Your task to perform on an android device: toggle notification dots Image 0: 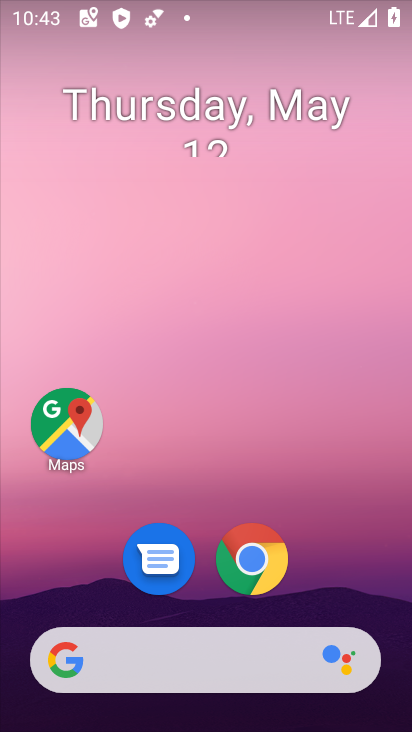
Step 0: drag from (192, 607) to (197, 183)
Your task to perform on an android device: toggle notification dots Image 1: 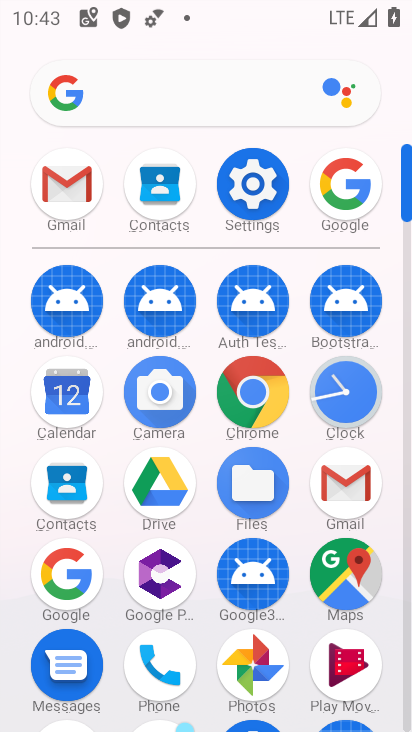
Step 1: click (224, 185)
Your task to perform on an android device: toggle notification dots Image 2: 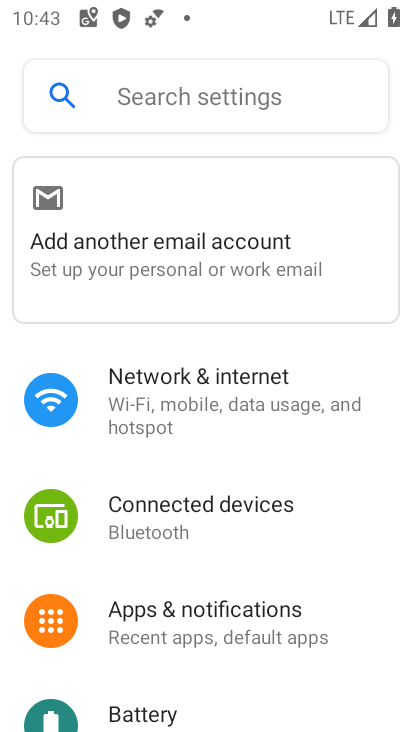
Step 2: click (231, 617)
Your task to perform on an android device: toggle notification dots Image 3: 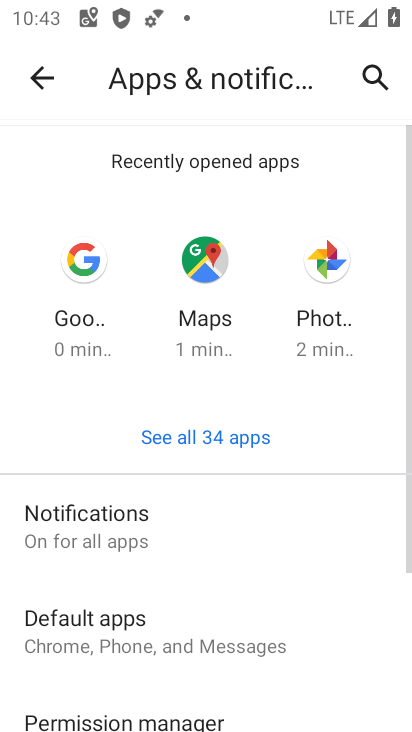
Step 3: click (177, 541)
Your task to perform on an android device: toggle notification dots Image 4: 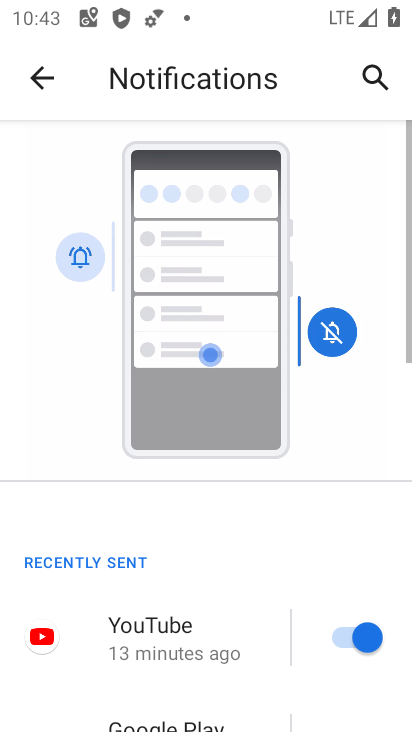
Step 4: drag from (242, 649) to (230, 282)
Your task to perform on an android device: toggle notification dots Image 5: 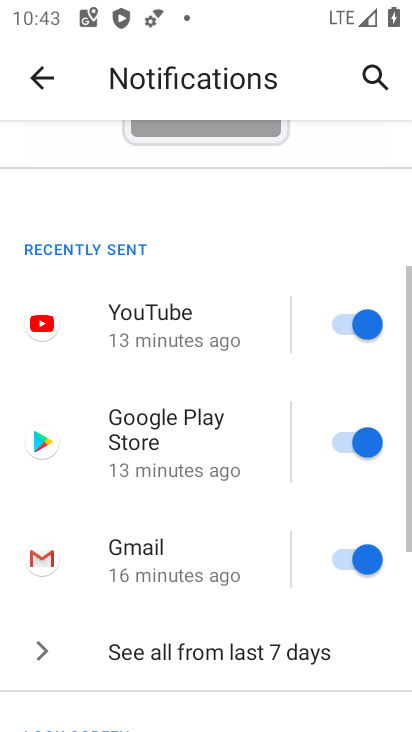
Step 5: drag from (224, 644) to (241, 363)
Your task to perform on an android device: toggle notification dots Image 6: 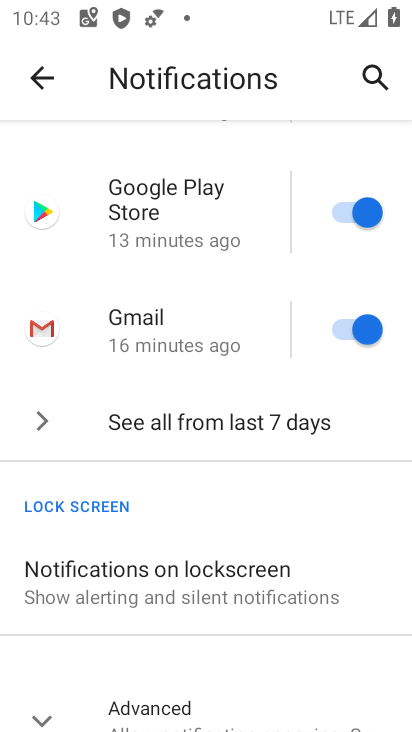
Step 6: drag from (213, 632) to (230, 372)
Your task to perform on an android device: toggle notification dots Image 7: 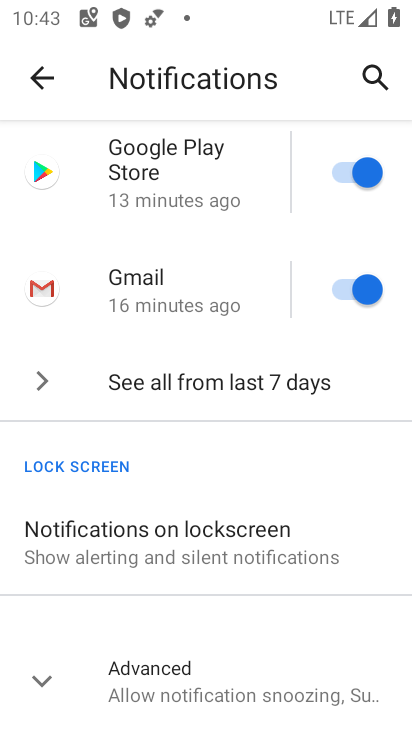
Step 7: click (203, 647)
Your task to perform on an android device: toggle notification dots Image 8: 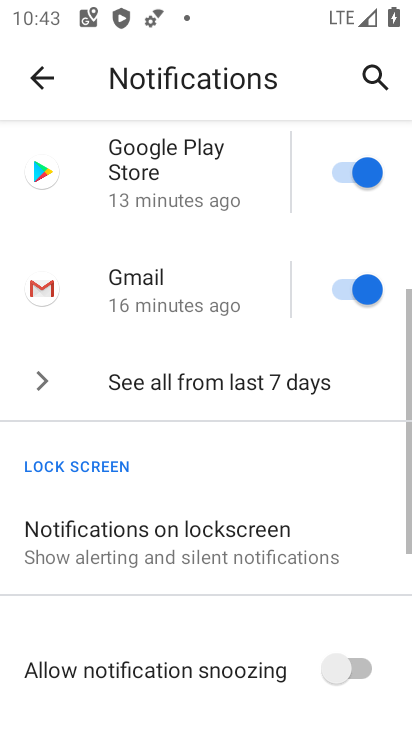
Step 8: drag from (231, 605) to (268, 313)
Your task to perform on an android device: toggle notification dots Image 9: 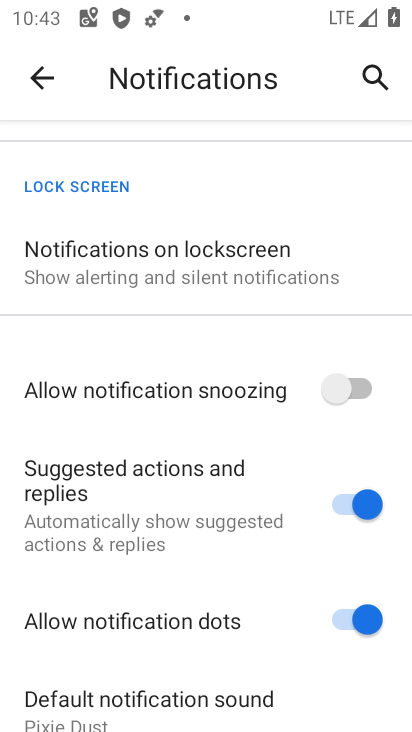
Step 9: click (341, 615)
Your task to perform on an android device: toggle notification dots Image 10: 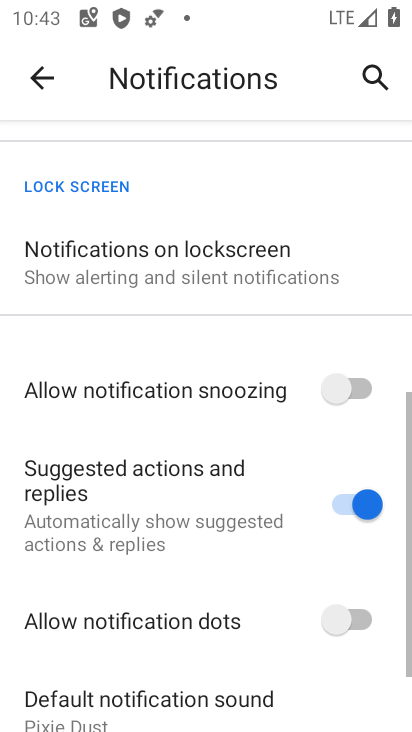
Step 10: task complete